Your task to perform on an android device: turn off priority inbox in the gmail app Image 0: 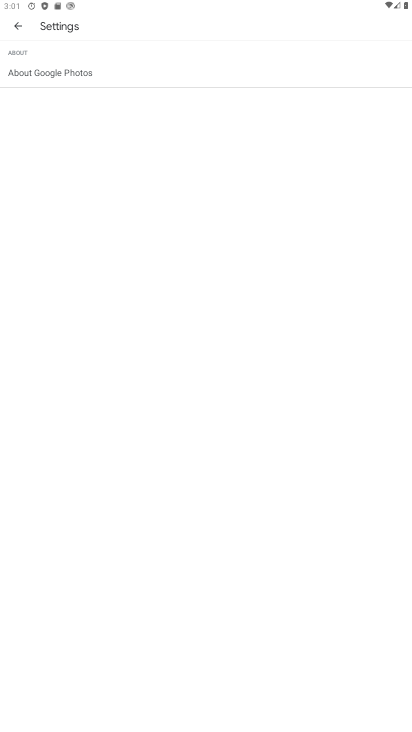
Step 0: press home button
Your task to perform on an android device: turn off priority inbox in the gmail app Image 1: 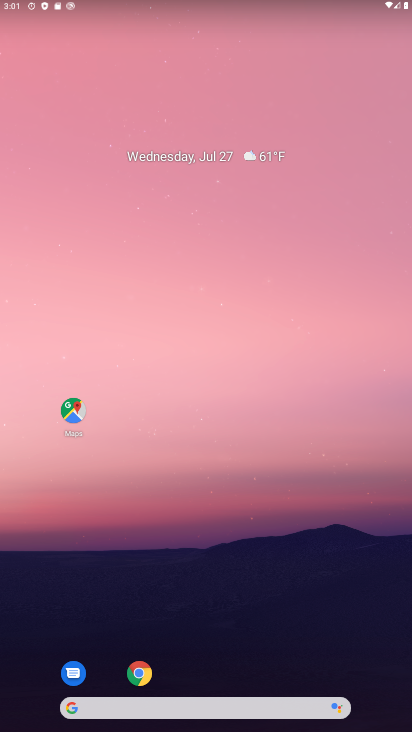
Step 1: drag from (17, 711) to (223, 201)
Your task to perform on an android device: turn off priority inbox in the gmail app Image 2: 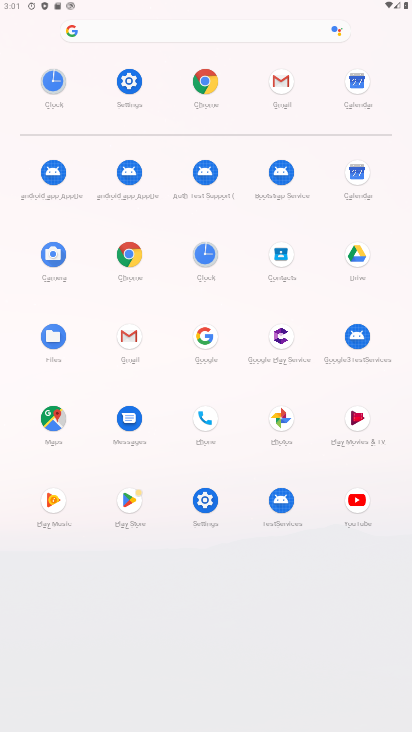
Step 2: click (128, 345)
Your task to perform on an android device: turn off priority inbox in the gmail app Image 3: 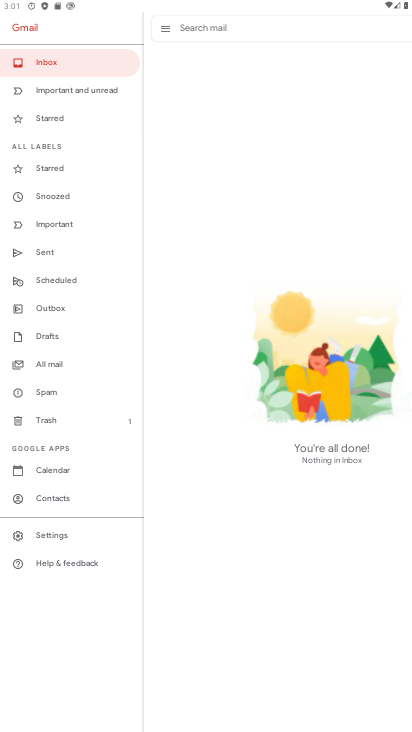
Step 3: click (40, 534)
Your task to perform on an android device: turn off priority inbox in the gmail app Image 4: 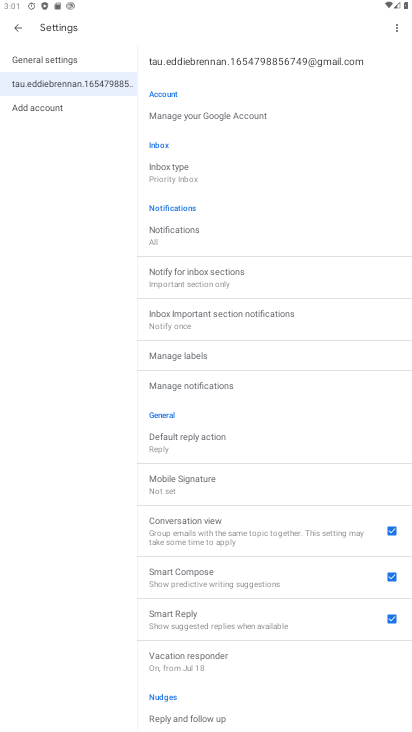
Step 4: task complete